Your task to perform on an android device: add a contact Image 0: 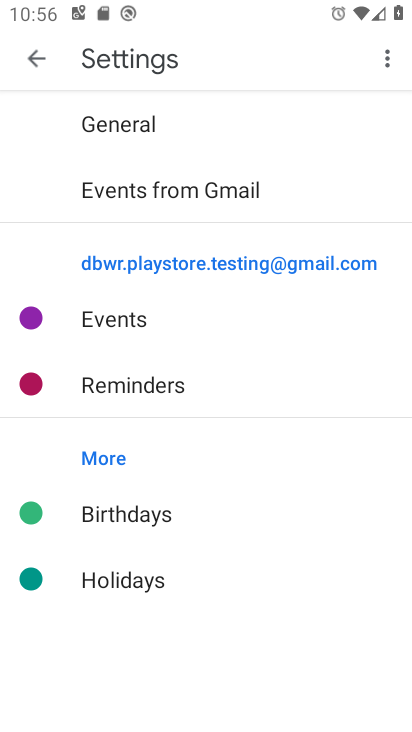
Step 0: press home button
Your task to perform on an android device: add a contact Image 1: 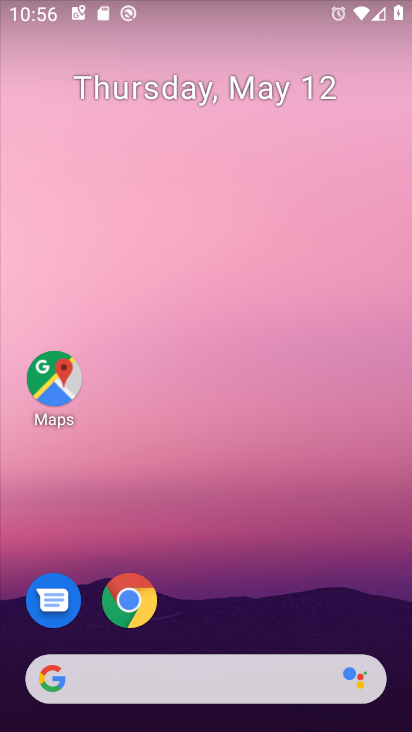
Step 1: drag from (211, 572) to (104, 196)
Your task to perform on an android device: add a contact Image 2: 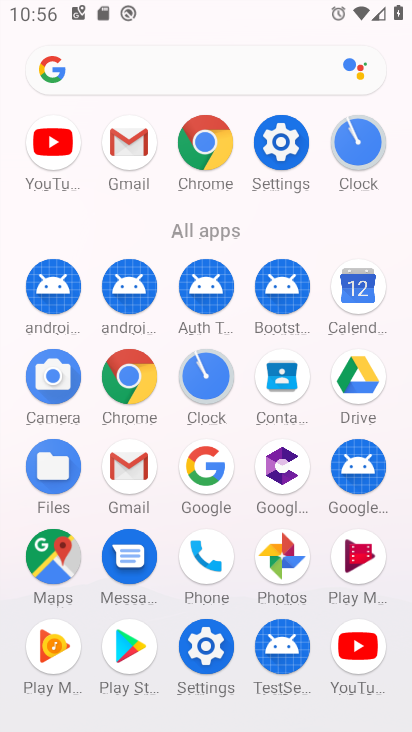
Step 2: click (272, 381)
Your task to perform on an android device: add a contact Image 3: 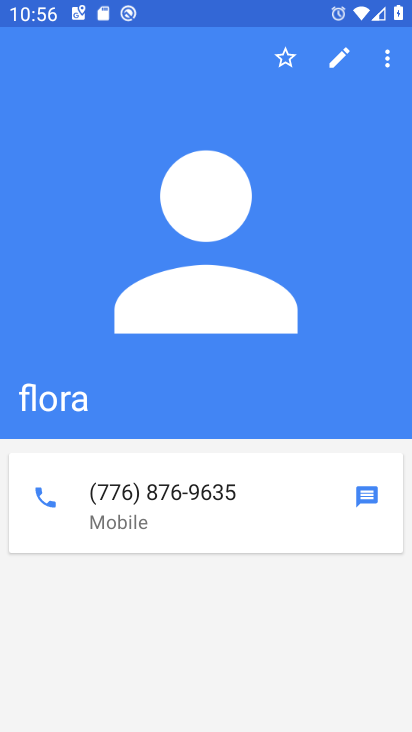
Step 3: press back button
Your task to perform on an android device: add a contact Image 4: 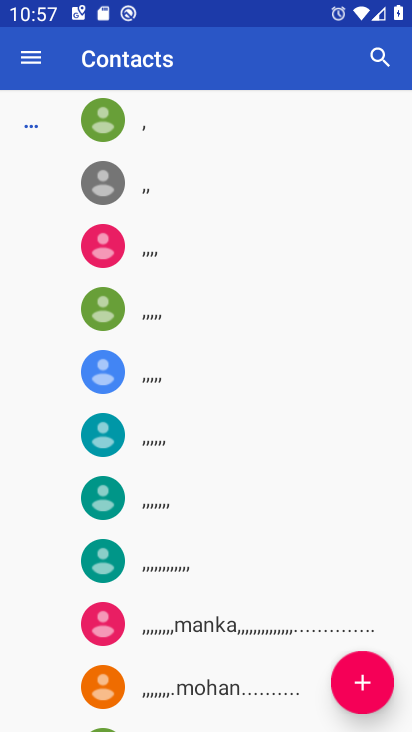
Step 4: click (363, 683)
Your task to perform on an android device: add a contact Image 5: 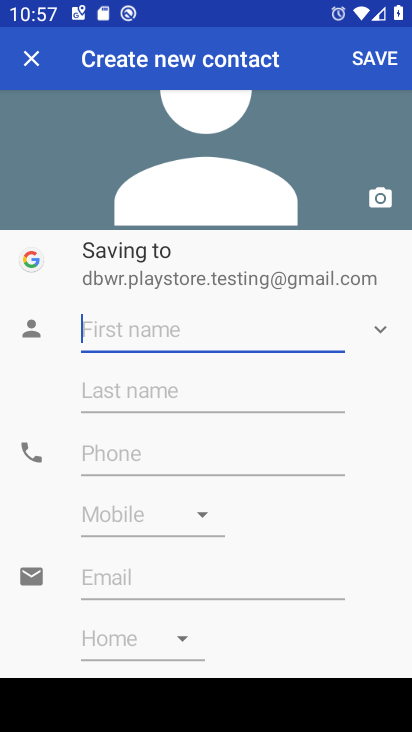
Step 5: click (156, 340)
Your task to perform on an android device: add a contact Image 6: 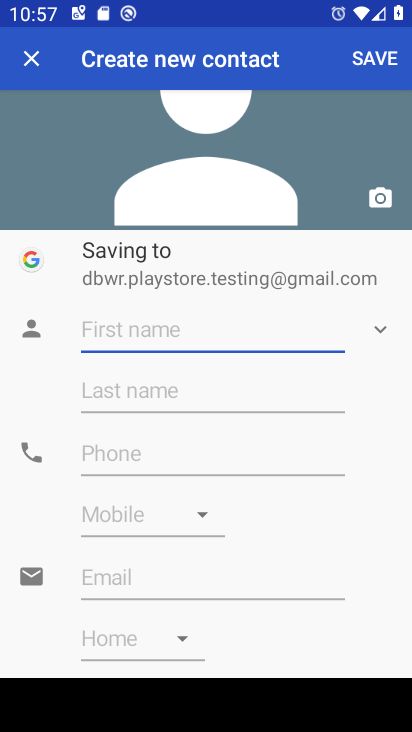
Step 6: type "faun"
Your task to perform on an android device: add a contact Image 7: 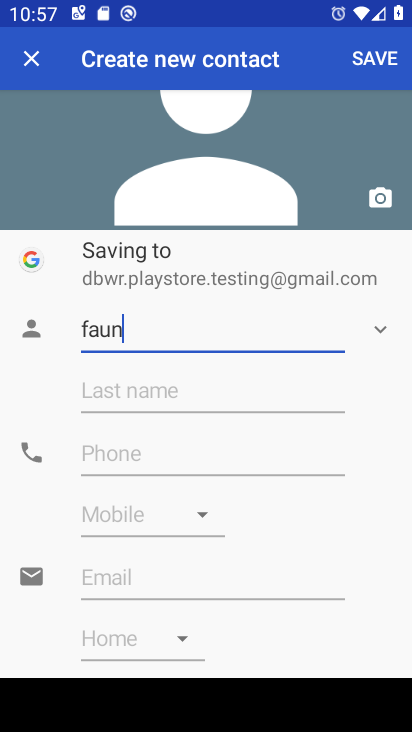
Step 7: click (108, 458)
Your task to perform on an android device: add a contact Image 8: 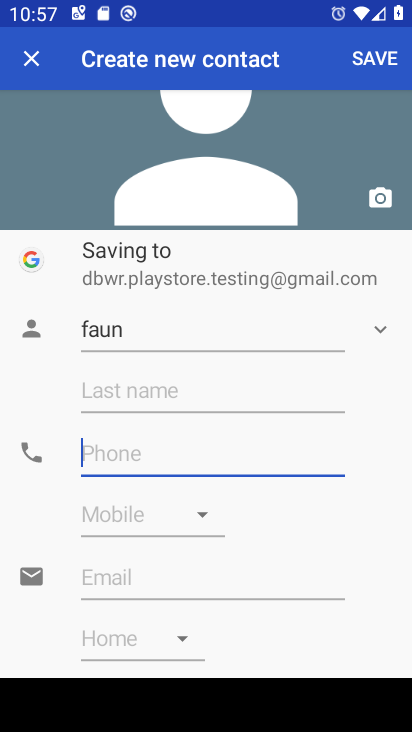
Step 8: type "99865438906"
Your task to perform on an android device: add a contact Image 9: 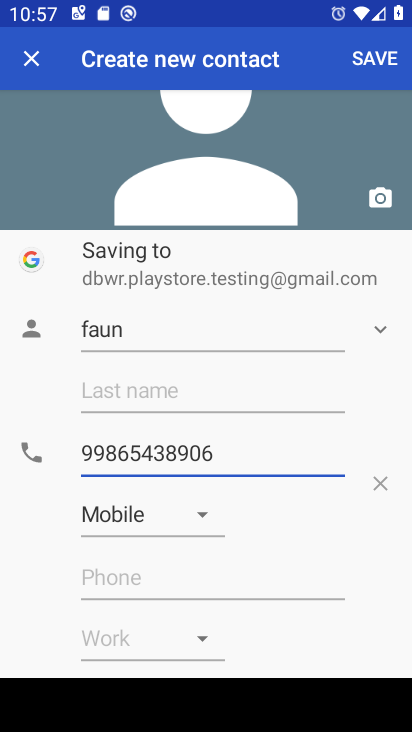
Step 9: click (387, 56)
Your task to perform on an android device: add a contact Image 10: 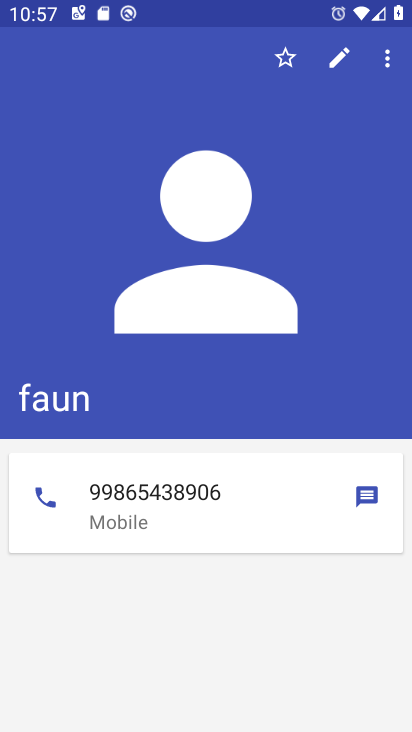
Step 10: task complete